Your task to perform on an android device: turn vacation reply on in the gmail app Image 0: 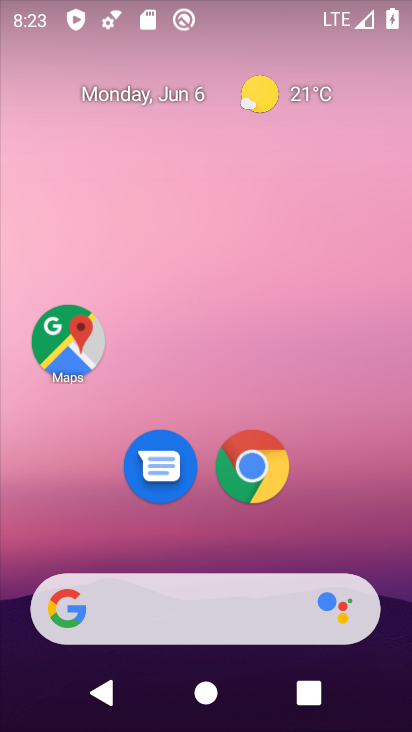
Step 0: drag from (182, 565) to (197, 26)
Your task to perform on an android device: turn vacation reply on in the gmail app Image 1: 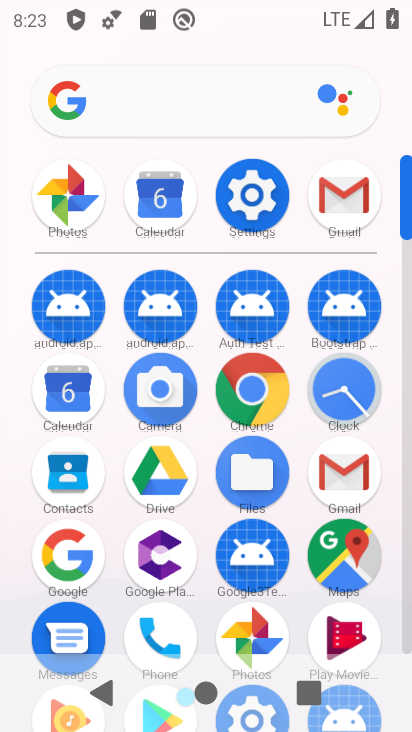
Step 1: click (332, 468)
Your task to perform on an android device: turn vacation reply on in the gmail app Image 2: 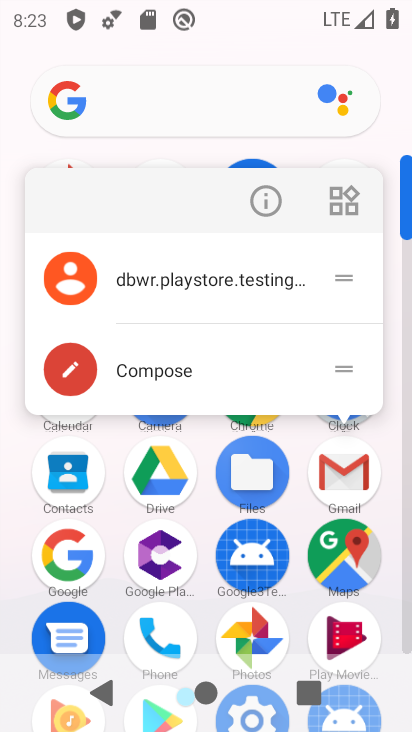
Step 2: click (258, 185)
Your task to perform on an android device: turn vacation reply on in the gmail app Image 3: 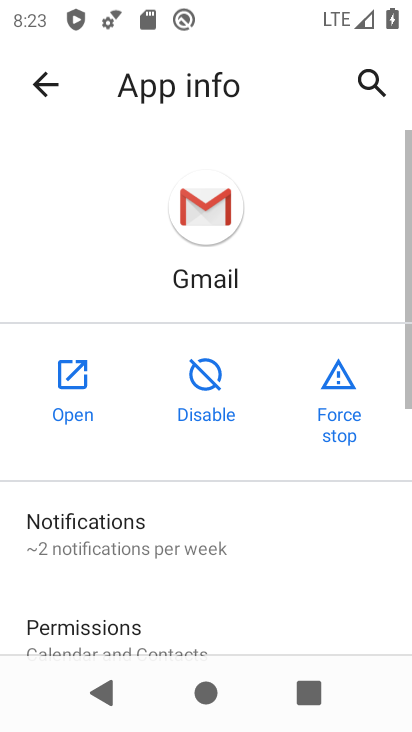
Step 3: click (63, 392)
Your task to perform on an android device: turn vacation reply on in the gmail app Image 4: 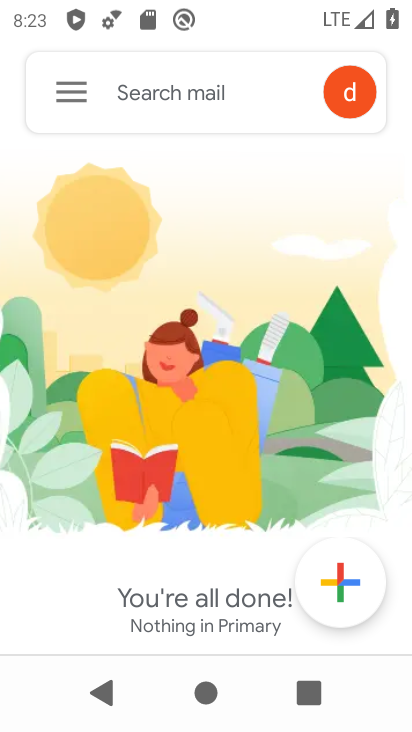
Step 4: drag from (175, 532) to (268, 191)
Your task to perform on an android device: turn vacation reply on in the gmail app Image 5: 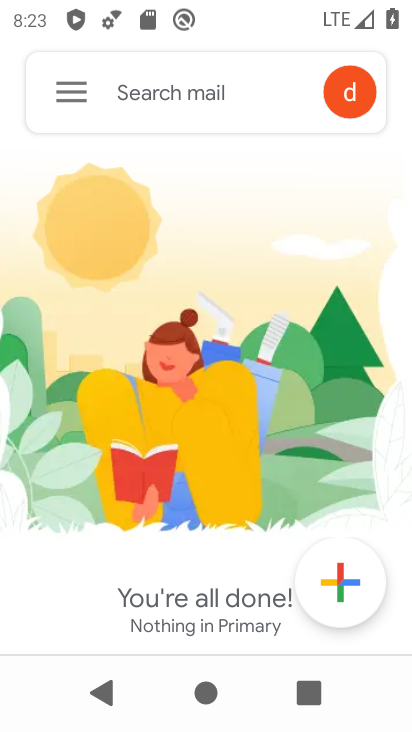
Step 5: click (83, 99)
Your task to perform on an android device: turn vacation reply on in the gmail app Image 6: 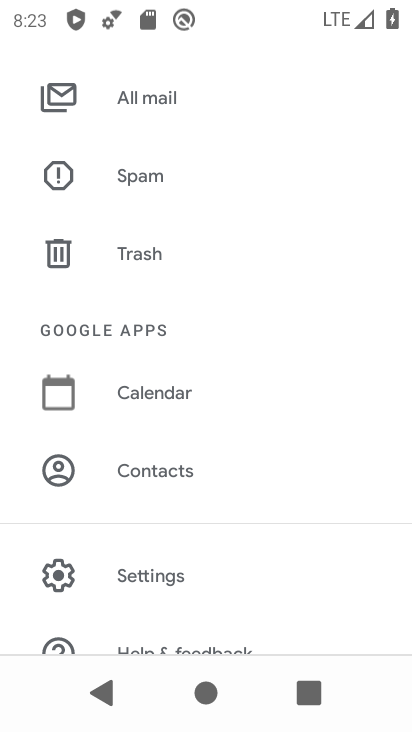
Step 6: drag from (181, 565) to (252, 252)
Your task to perform on an android device: turn vacation reply on in the gmail app Image 7: 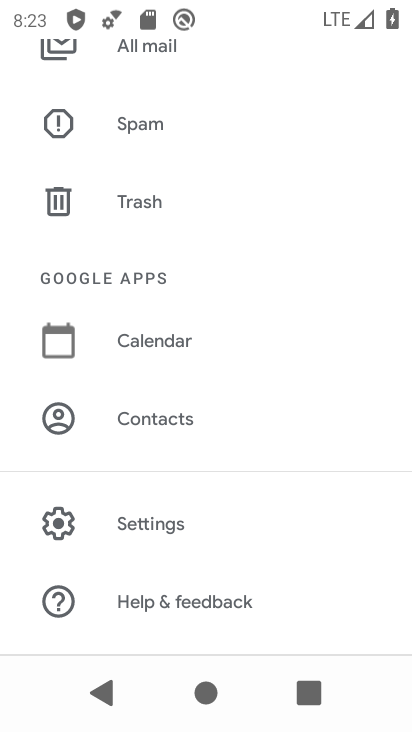
Step 7: click (185, 532)
Your task to perform on an android device: turn vacation reply on in the gmail app Image 8: 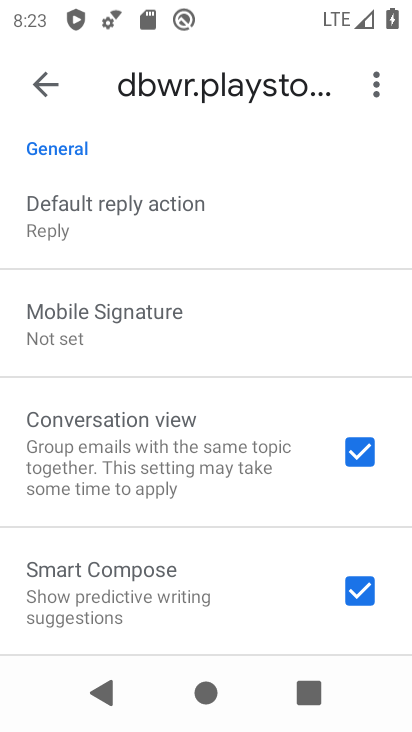
Step 8: drag from (156, 527) to (223, 164)
Your task to perform on an android device: turn vacation reply on in the gmail app Image 9: 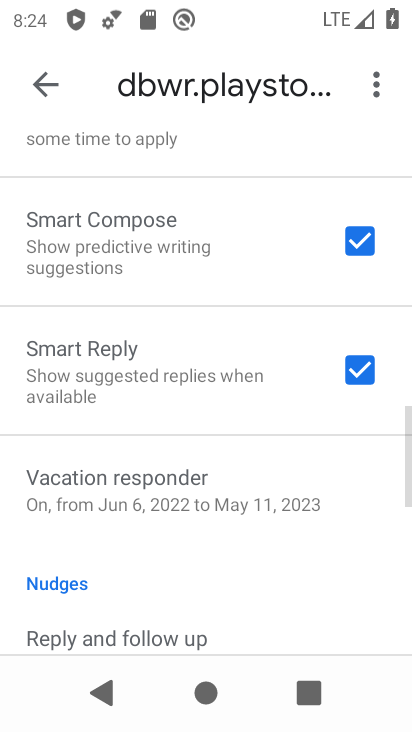
Step 9: click (197, 517)
Your task to perform on an android device: turn vacation reply on in the gmail app Image 10: 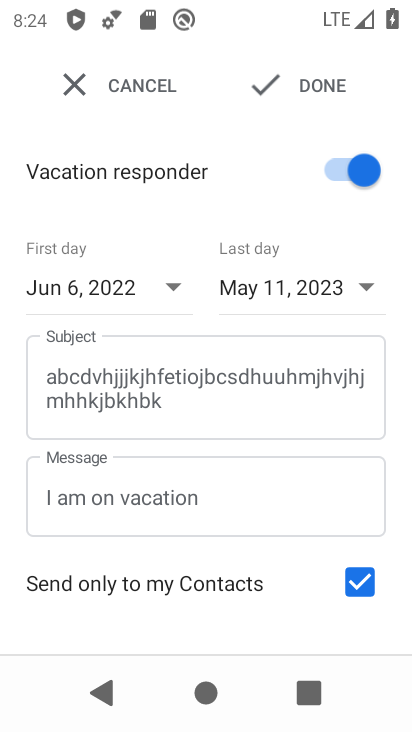
Step 10: click (297, 89)
Your task to perform on an android device: turn vacation reply on in the gmail app Image 11: 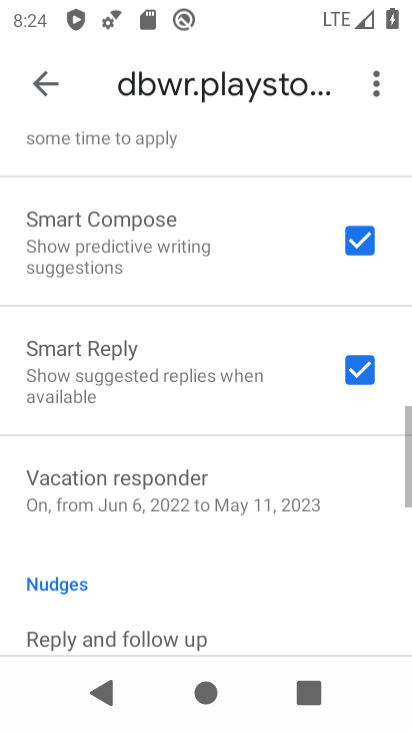
Step 11: task complete